Your task to perform on an android device: Go to Google Image 0: 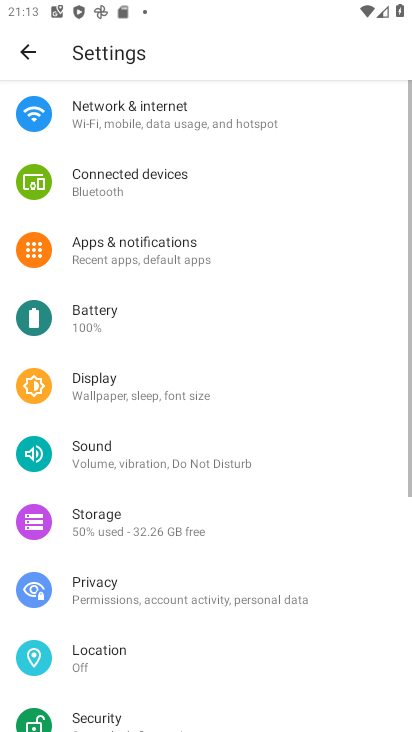
Step 0: press home button
Your task to perform on an android device: Go to Google Image 1: 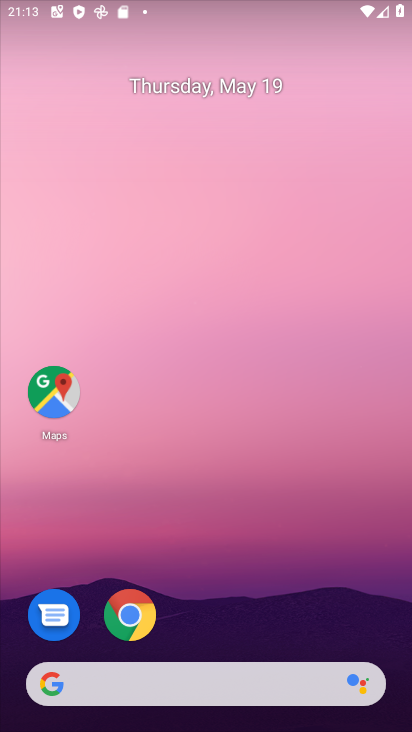
Step 1: drag from (234, 597) to (245, 104)
Your task to perform on an android device: Go to Google Image 2: 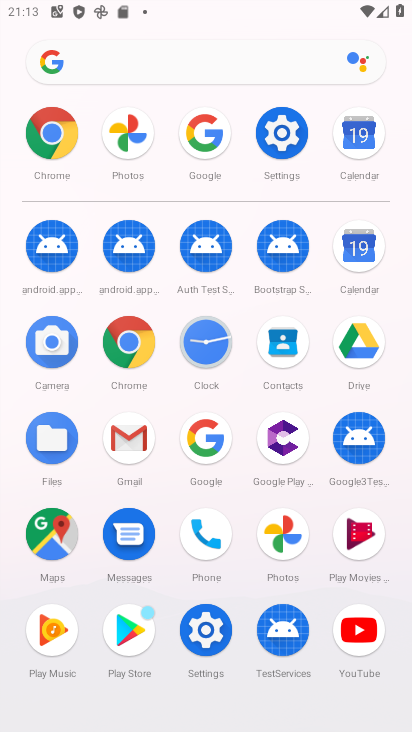
Step 2: click (208, 433)
Your task to perform on an android device: Go to Google Image 3: 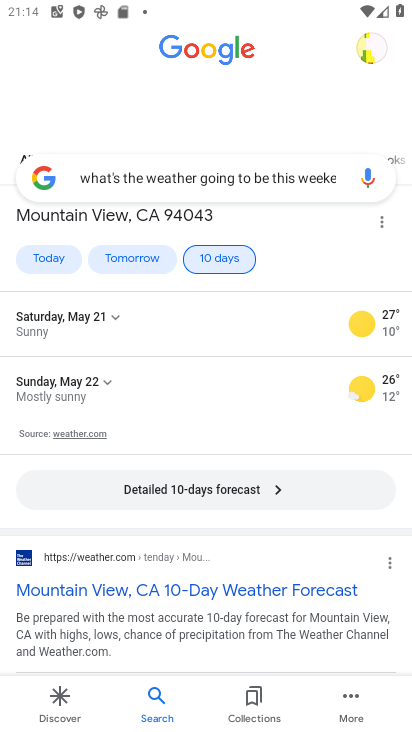
Step 3: task complete